Your task to perform on an android device: set an alarm Image 0: 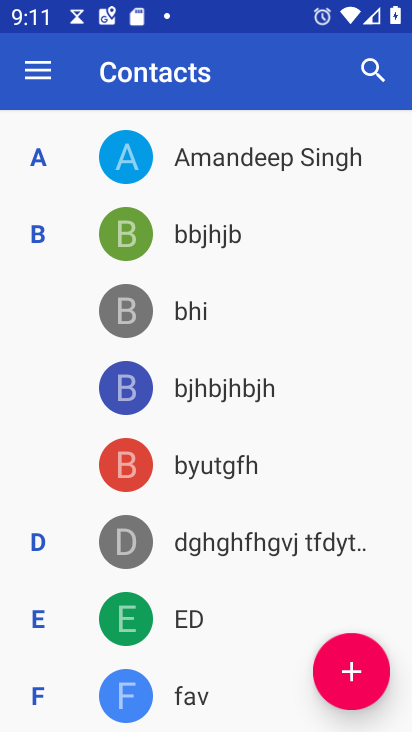
Step 0: press home button
Your task to perform on an android device: set an alarm Image 1: 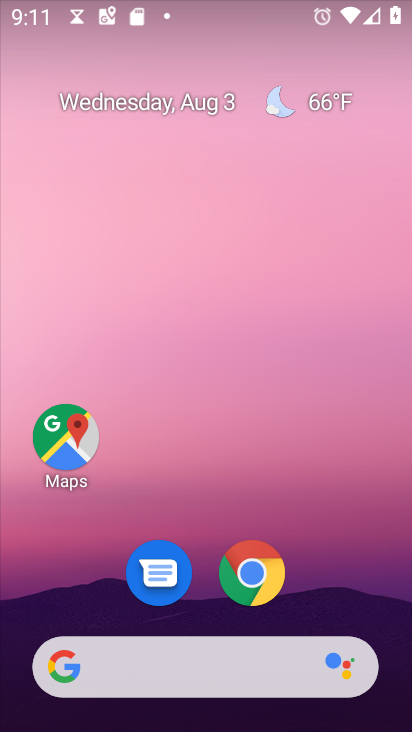
Step 1: drag from (367, 605) to (354, 2)
Your task to perform on an android device: set an alarm Image 2: 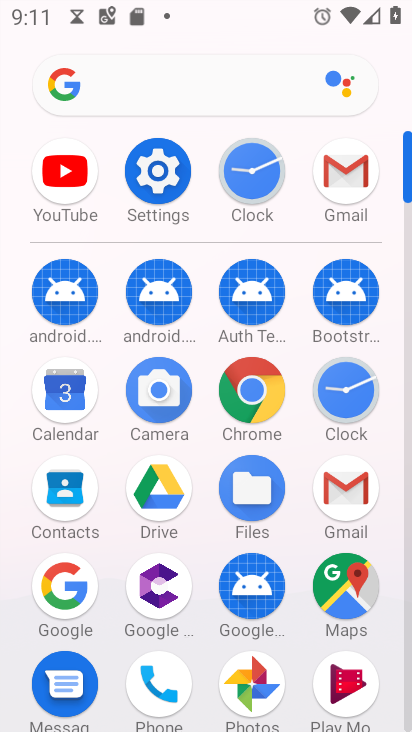
Step 2: click (243, 171)
Your task to perform on an android device: set an alarm Image 3: 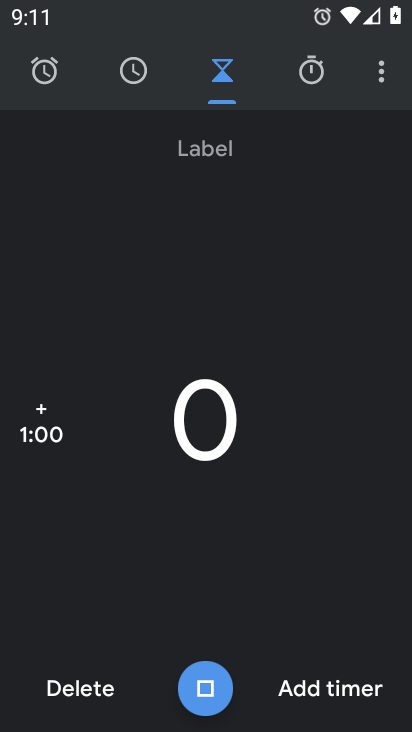
Step 3: click (49, 75)
Your task to perform on an android device: set an alarm Image 4: 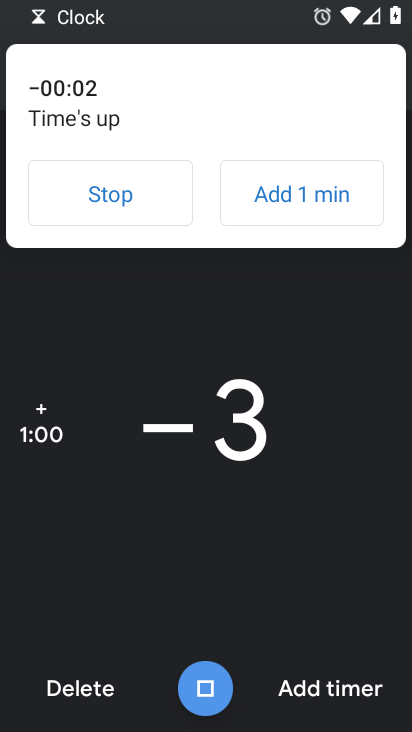
Step 4: click (91, 184)
Your task to perform on an android device: set an alarm Image 5: 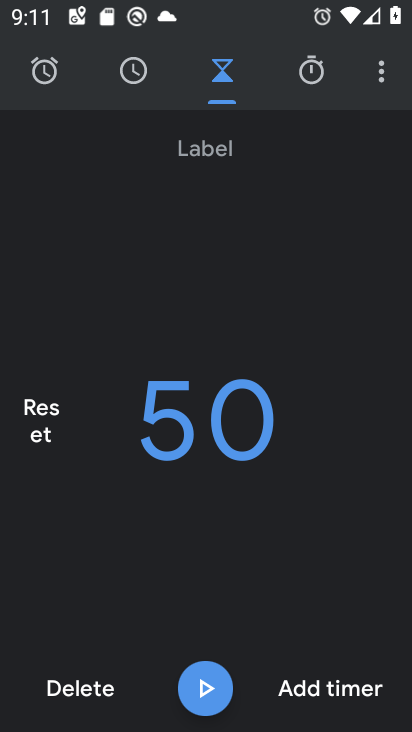
Step 5: click (50, 78)
Your task to perform on an android device: set an alarm Image 6: 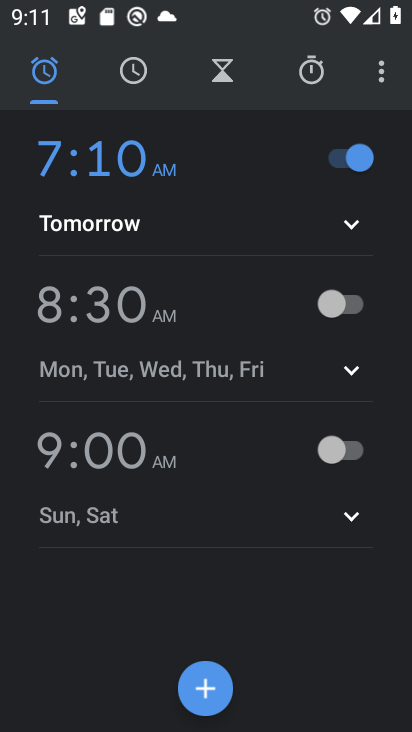
Step 6: click (213, 698)
Your task to perform on an android device: set an alarm Image 7: 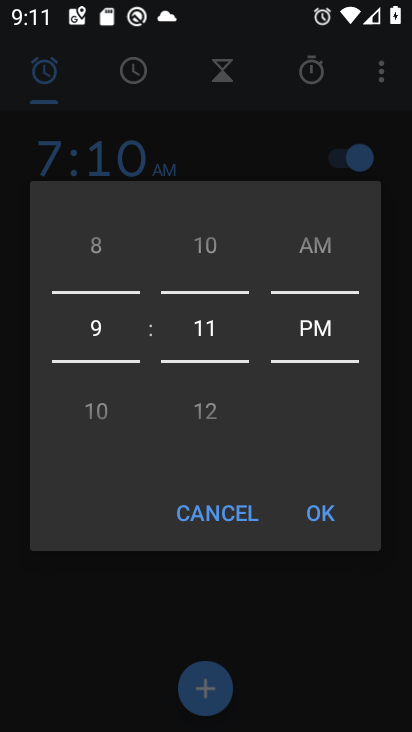
Step 7: drag from (96, 325) to (101, 543)
Your task to perform on an android device: set an alarm Image 8: 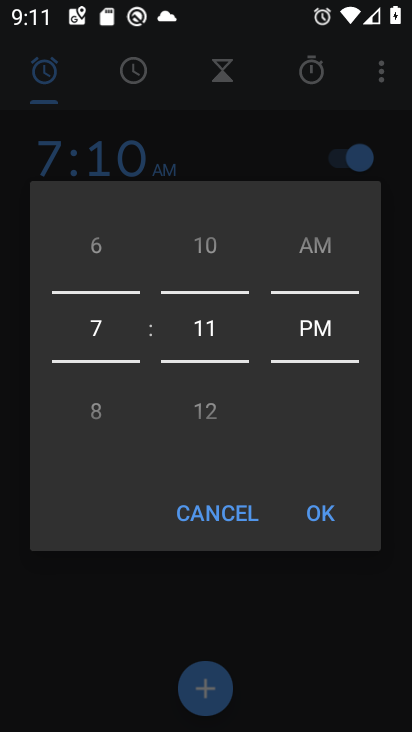
Step 8: drag from (105, 320) to (99, 535)
Your task to perform on an android device: set an alarm Image 9: 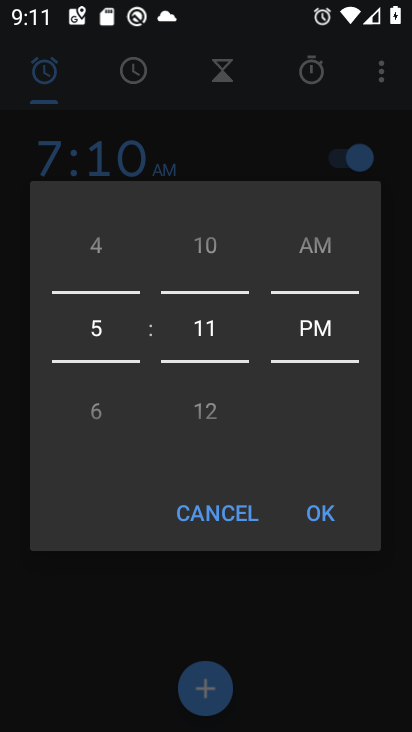
Step 9: drag from (204, 324) to (203, 729)
Your task to perform on an android device: set an alarm Image 10: 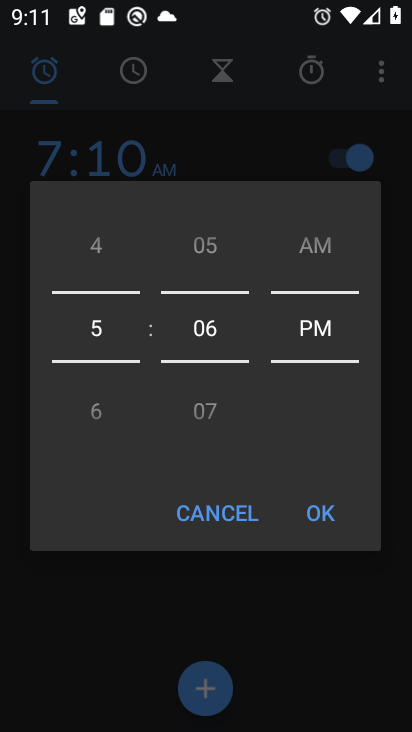
Step 10: drag from (207, 328) to (209, 463)
Your task to perform on an android device: set an alarm Image 11: 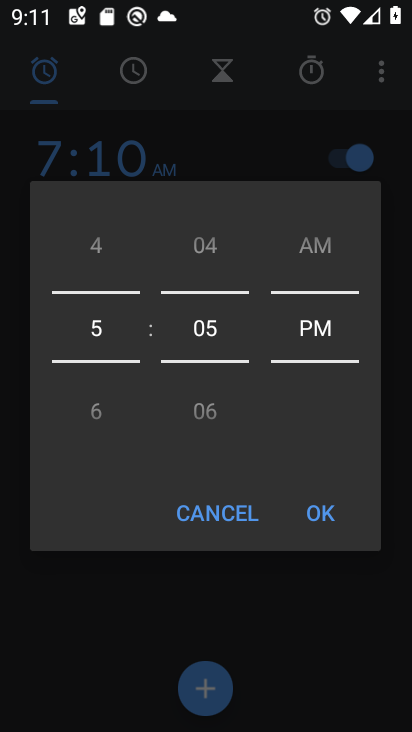
Step 11: drag from (326, 340) to (329, 475)
Your task to perform on an android device: set an alarm Image 12: 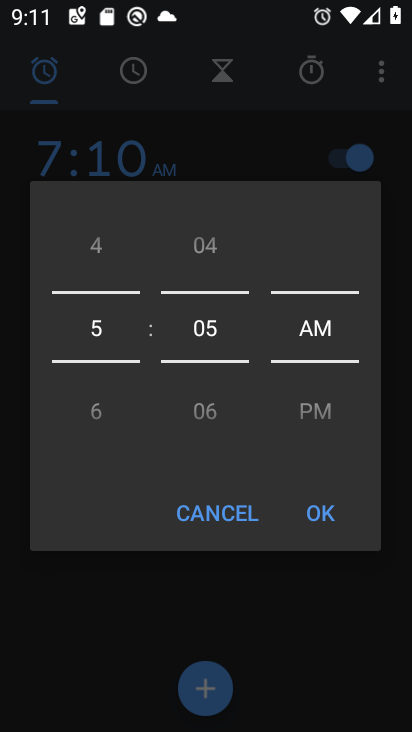
Step 12: click (322, 531)
Your task to perform on an android device: set an alarm Image 13: 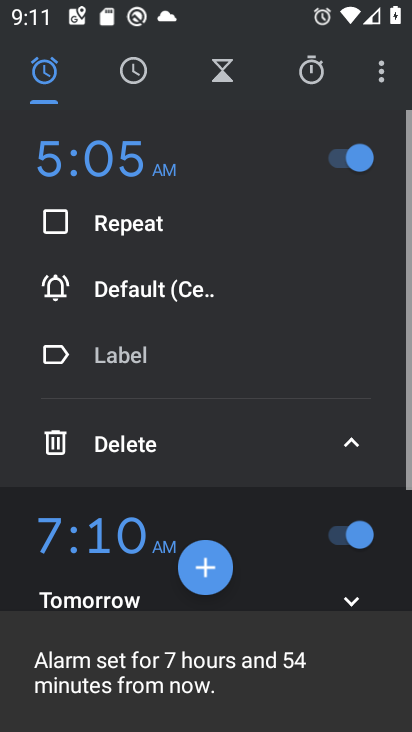
Step 13: task complete